Your task to perform on an android device: Open calendar and show me the third week of next month Image 0: 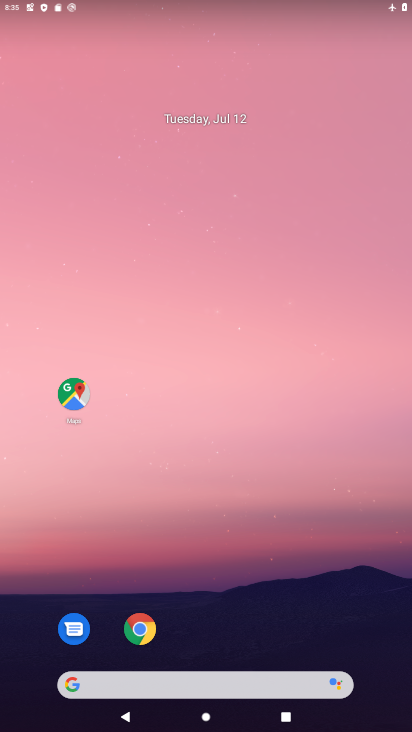
Step 0: drag from (199, 569) to (210, 251)
Your task to perform on an android device: Open calendar and show me the third week of next month Image 1: 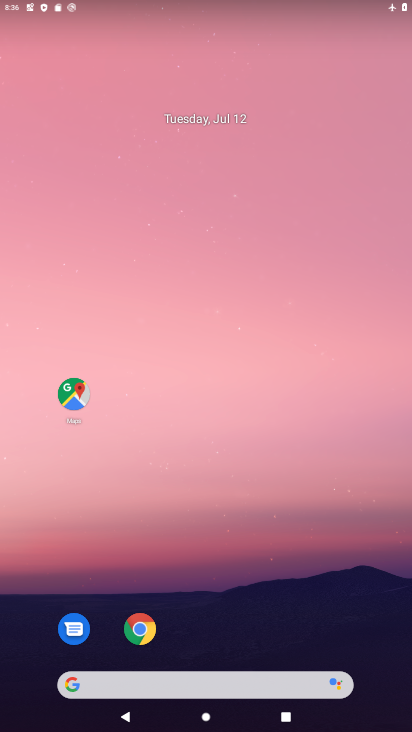
Step 1: drag from (252, 638) to (242, 198)
Your task to perform on an android device: Open calendar and show me the third week of next month Image 2: 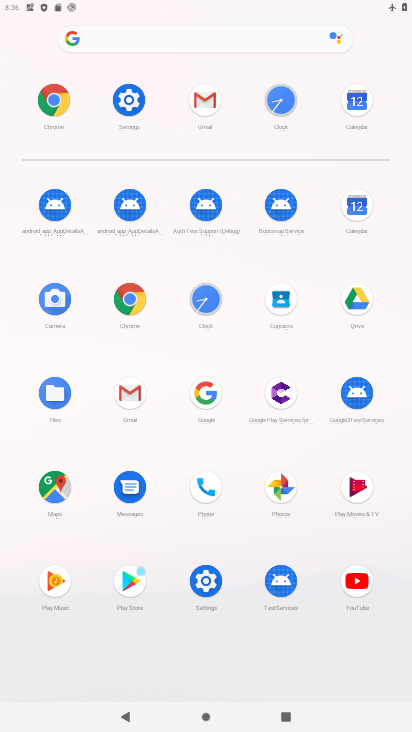
Step 2: click (357, 199)
Your task to perform on an android device: Open calendar and show me the third week of next month Image 3: 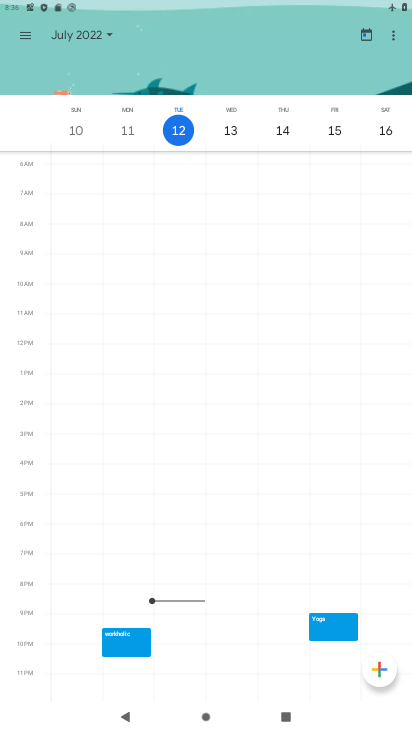
Step 3: click (23, 22)
Your task to perform on an android device: Open calendar and show me the third week of next month Image 4: 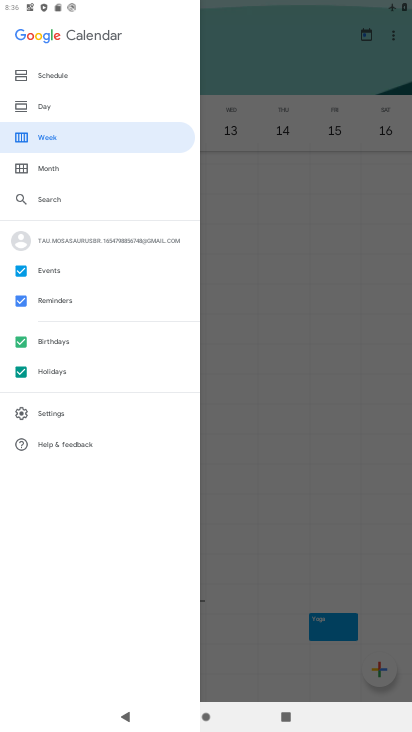
Step 4: click (62, 168)
Your task to perform on an android device: Open calendar and show me the third week of next month Image 5: 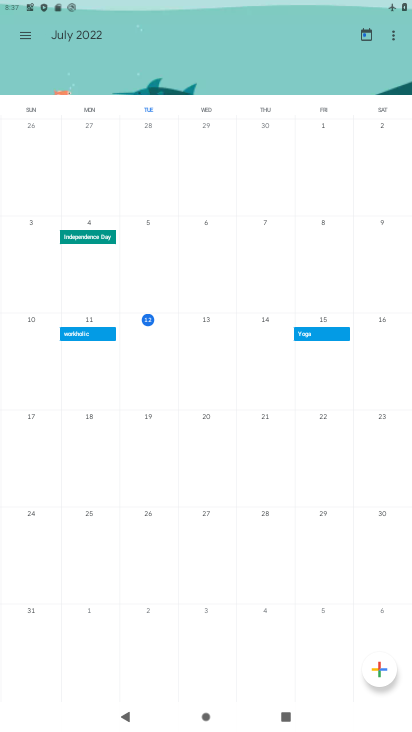
Step 5: task complete